Your task to perform on an android device: Open Chrome and go to the settings page Image 0: 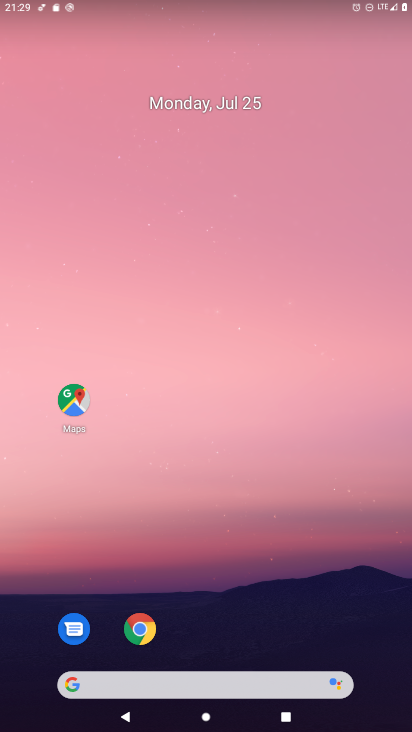
Step 0: click (139, 628)
Your task to perform on an android device: Open Chrome and go to the settings page Image 1: 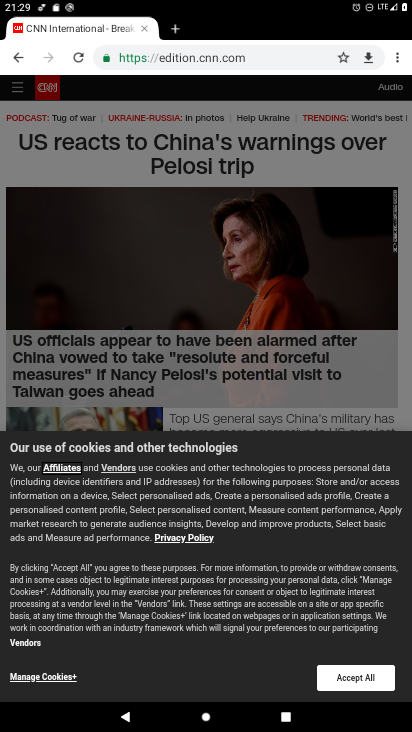
Step 1: click (400, 58)
Your task to perform on an android device: Open Chrome and go to the settings page Image 2: 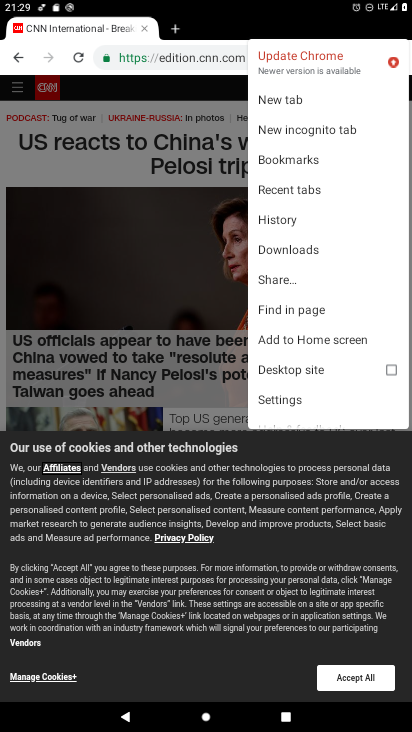
Step 2: click (277, 400)
Your task to perform on an android device: Open Chrome and go to the settings page Image 3: 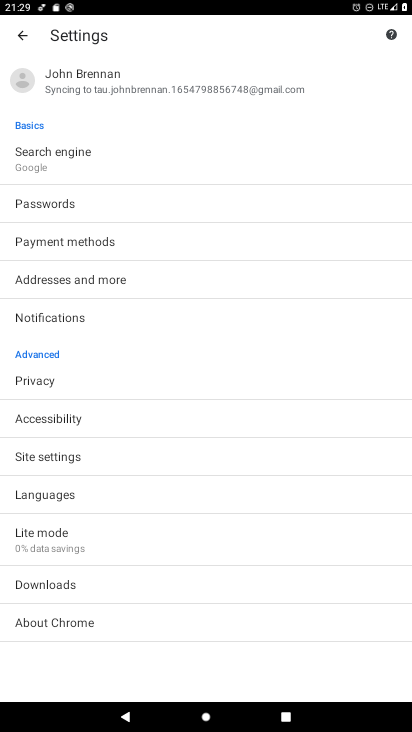
Step 3: task complete